Your task to perform on an android device: Open Wikipedia Image 0: 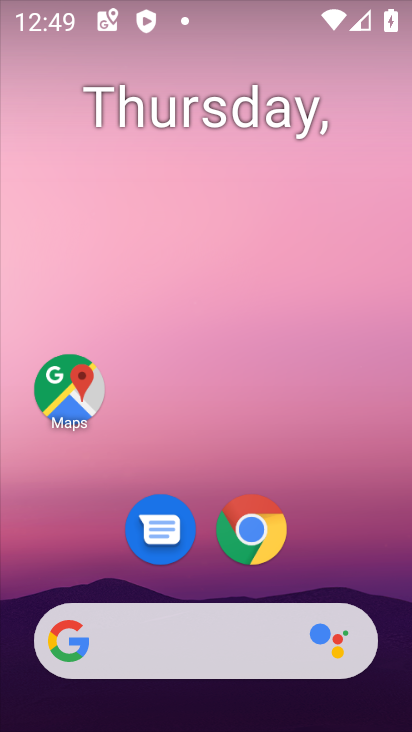
Step 0: click (248, 537)
Your task to perform on an android device: Open Wikipedia Image 1: 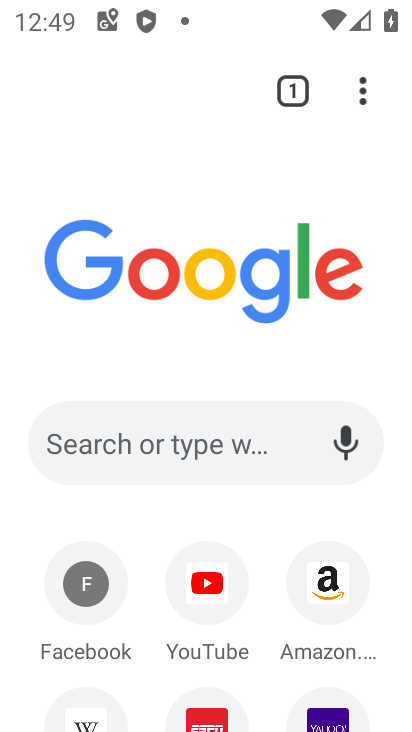
Step 1: click (85, 712)
Your task to perform on an android device: Open Wikipedia Image 2: 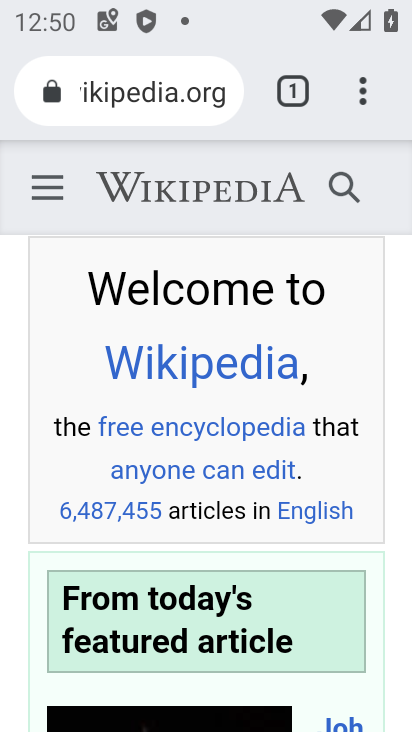
Step 2: task complete